Your task to perform on an android device: Go to location settings Image 0: 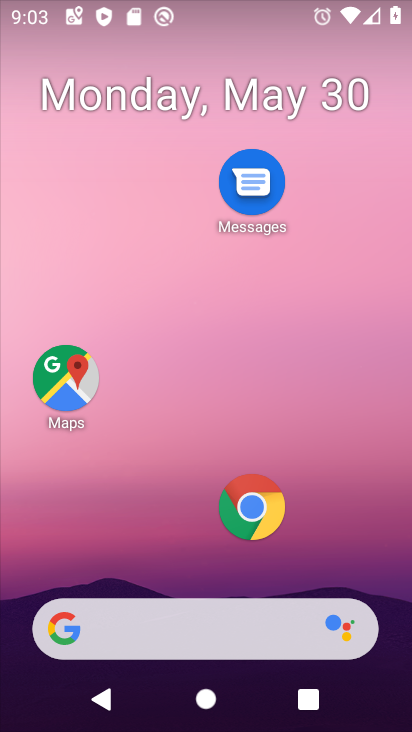
Step 0: drag from (208, 555) to (321, 8)
Your task to perform on an android device: Go to location settings Image 1: 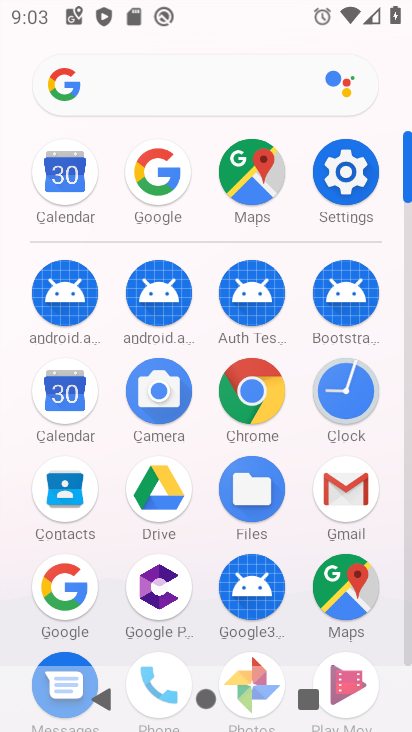
Step 1: click (334, 175)
Your task to perform on an android device: Go to location settings Image 2: 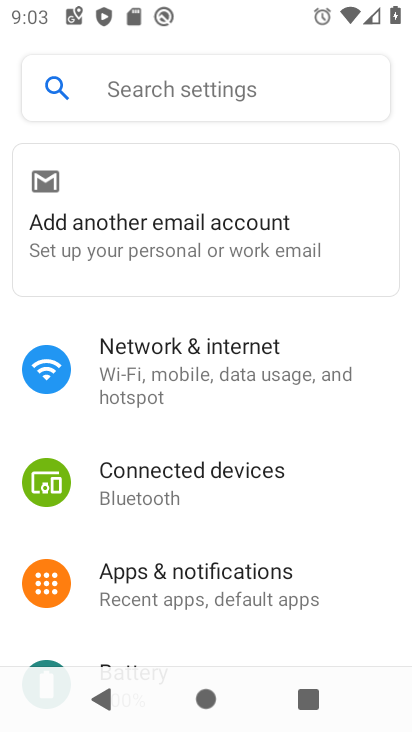
Step 2: drag from (206, 586) to (214, 349)
Your task to perform on an android device: Go to location settings Image 3: 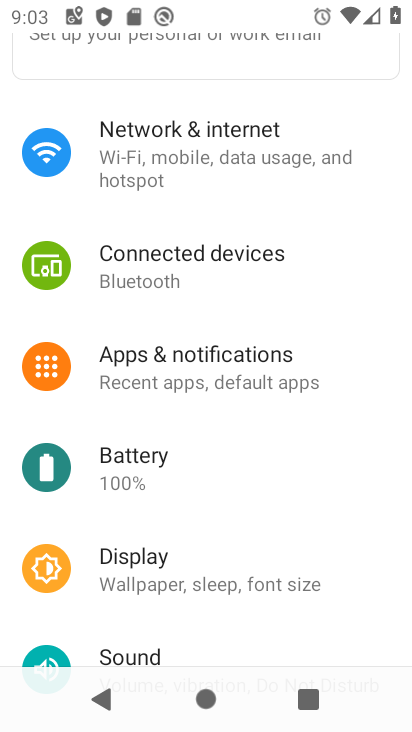
Step 3: drag from (173, 585) to (192, 282)
Your task to perform on an android device: Go to location settings Image 4: 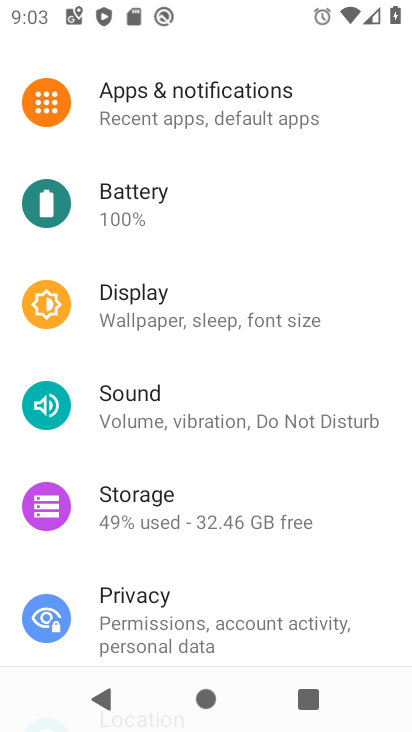
Step 4: drag from (201, 593) to (199, 240)
Your task to perform on an android device: Go to location settings Image 5: 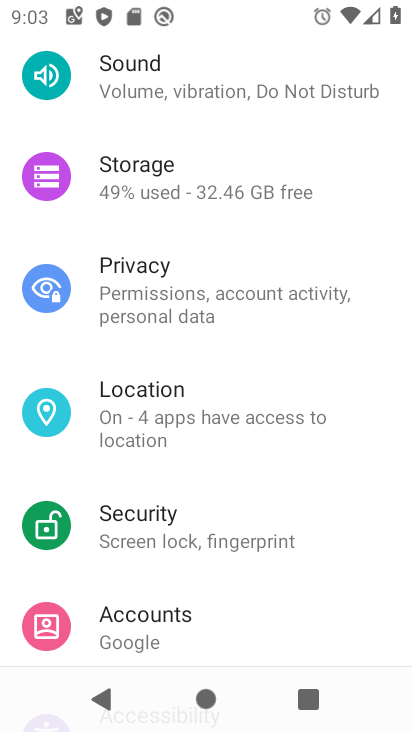
Step 5: click (173, 418)
Your task to perform on an android device: Go to location settings Image 6: 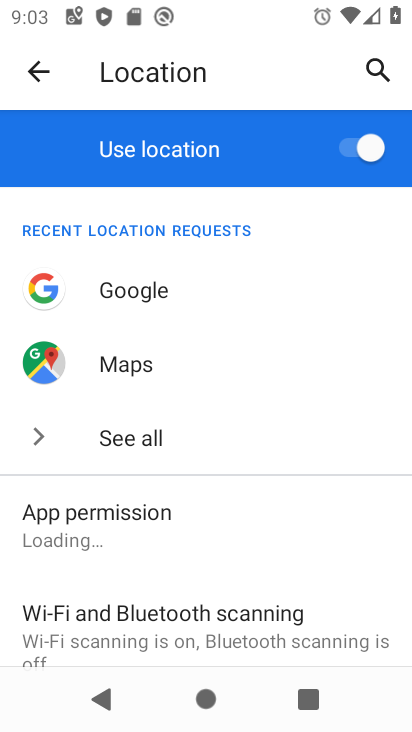
Step 6: task complete